Your task to perform on an android device: Search for a sofa on article.com Image 0: 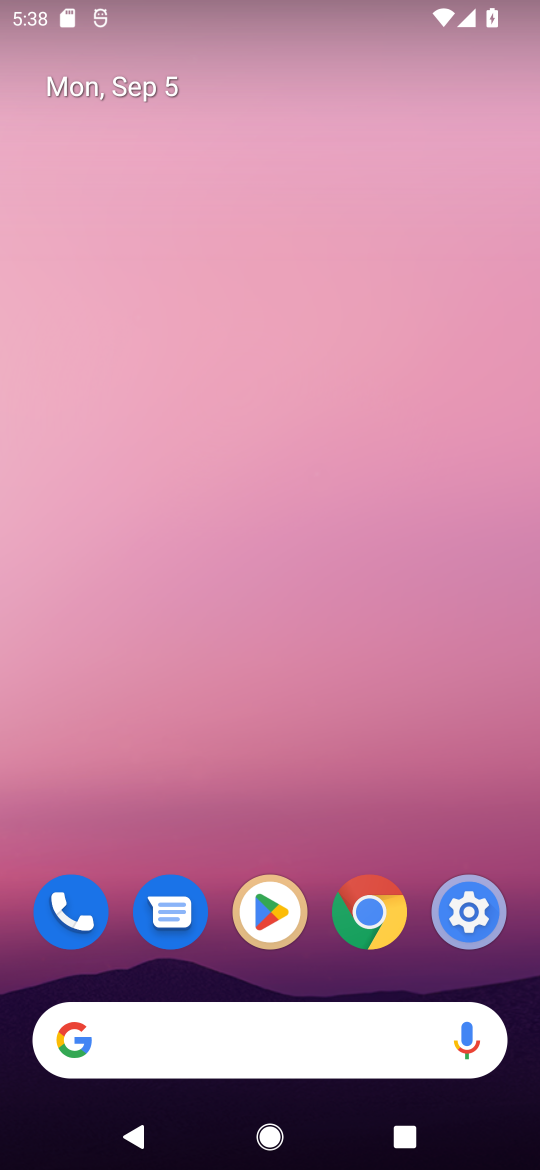
Step 0: click (373, 925)
Your task to perform on an android device: Search for a sofa on article.com Image 1: 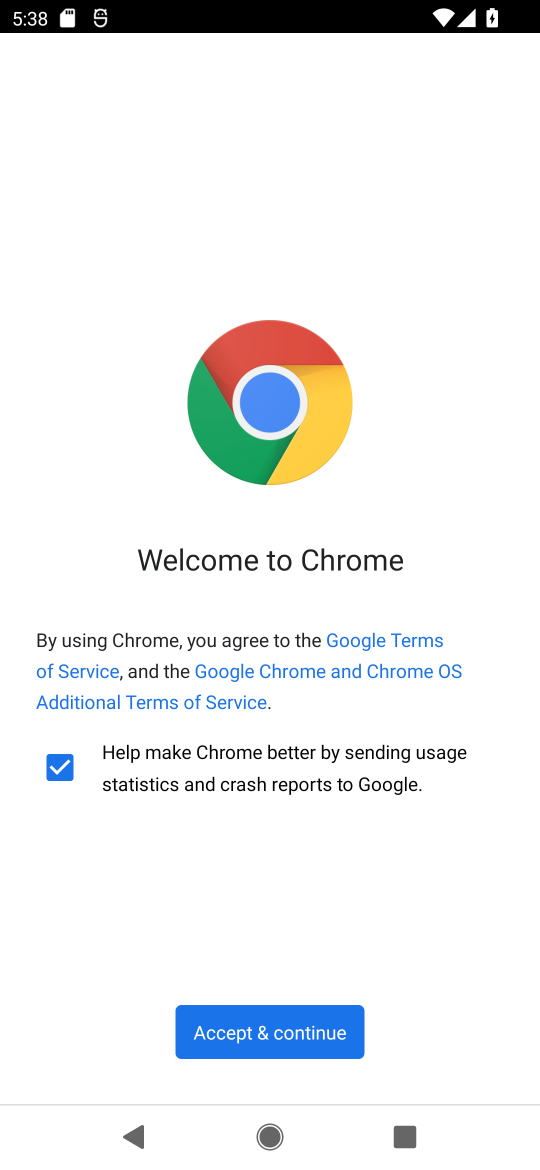
Step 1: click (292, 1043)
Your task to perform on an android device: Search for a sofa on article.com Image 2: 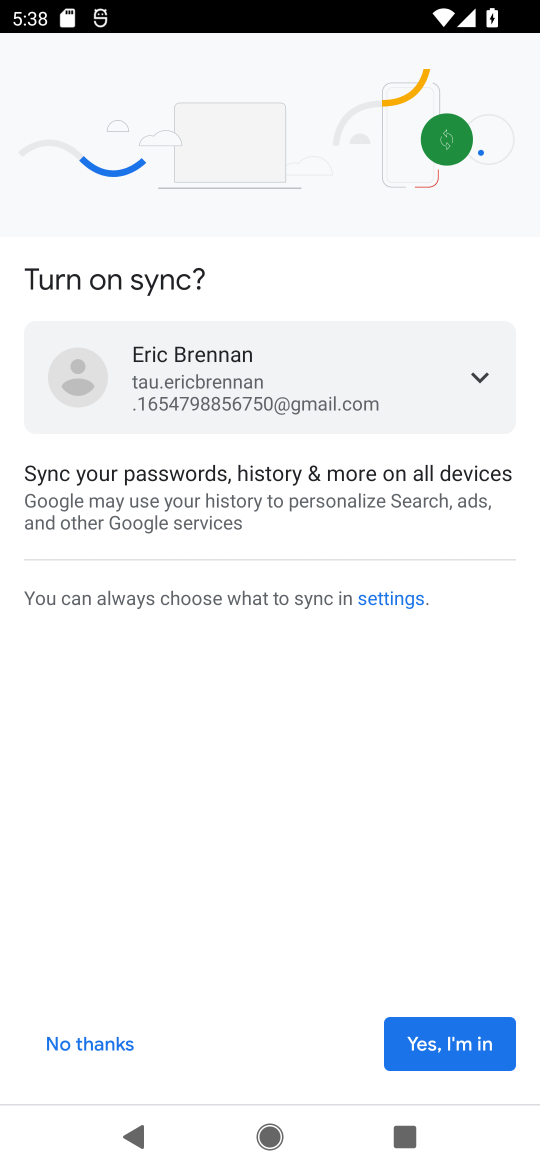
Step 2: click (419, 1036)
Your task to perform on an android device: Search for a sofa on article.com Image 3: 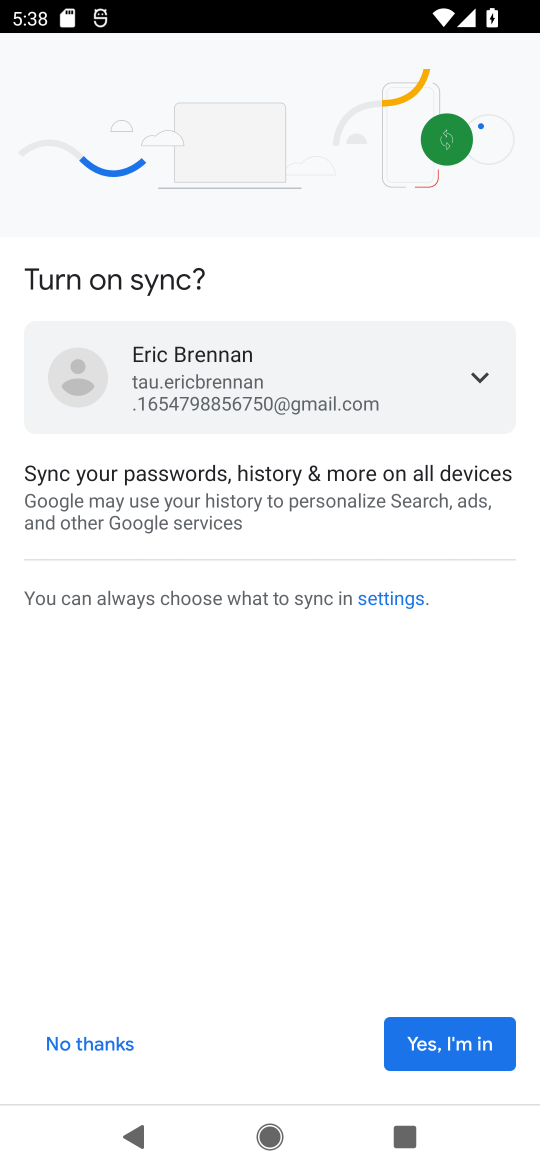
Step 3: click (490, 1040)
Your task to perform on an android device: Search for a sofa on article.com Image 4: 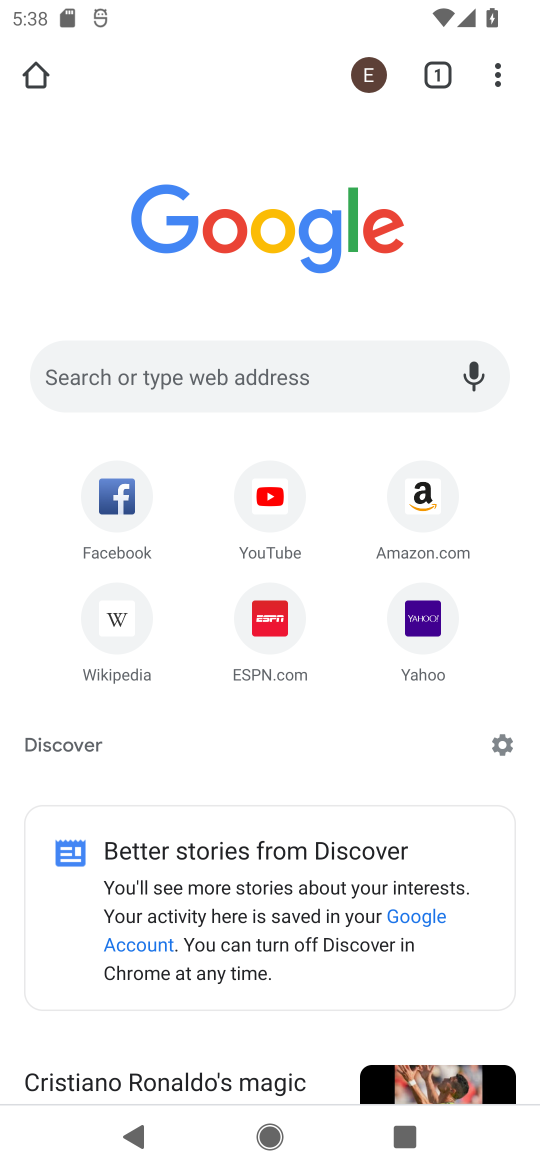
Step 4: click (221, 378)
Your task to perform on an android device: Search for a sofa on article.com Image 5: 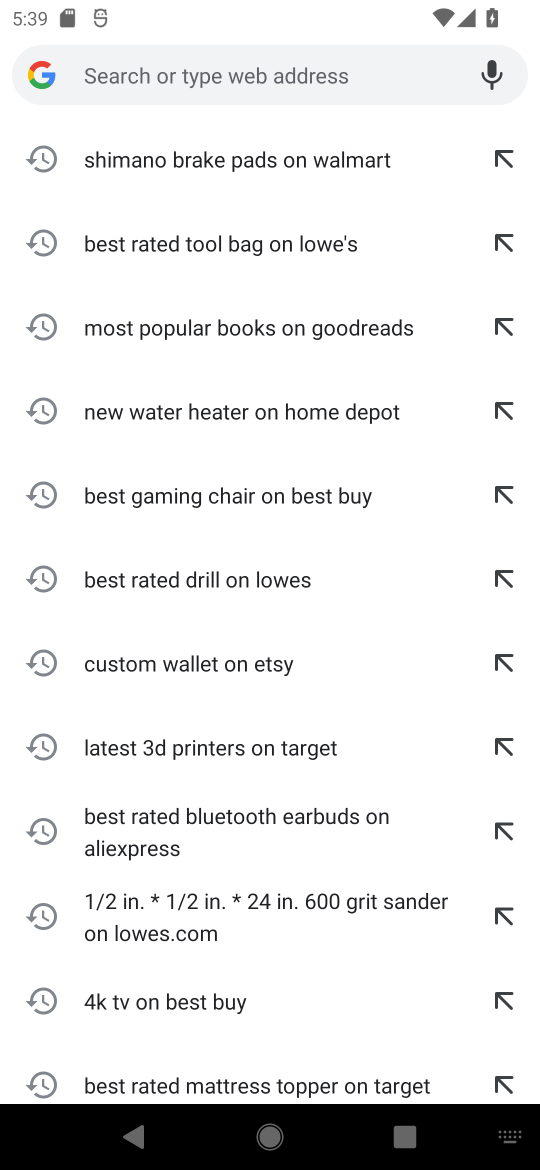
Step 5: type "Article.com"
Your task to perform on an android device: Search for a sofa on article.com Image 6: 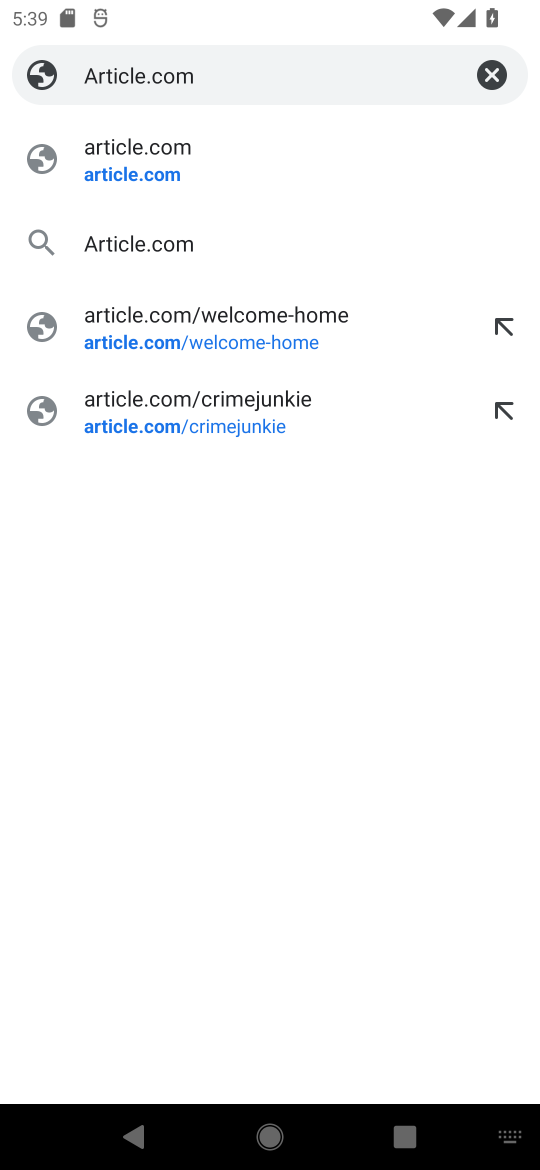
Step 6: click (121, 151)
Your task to perform on an android device: Search for a sofa on article.com Image 7: 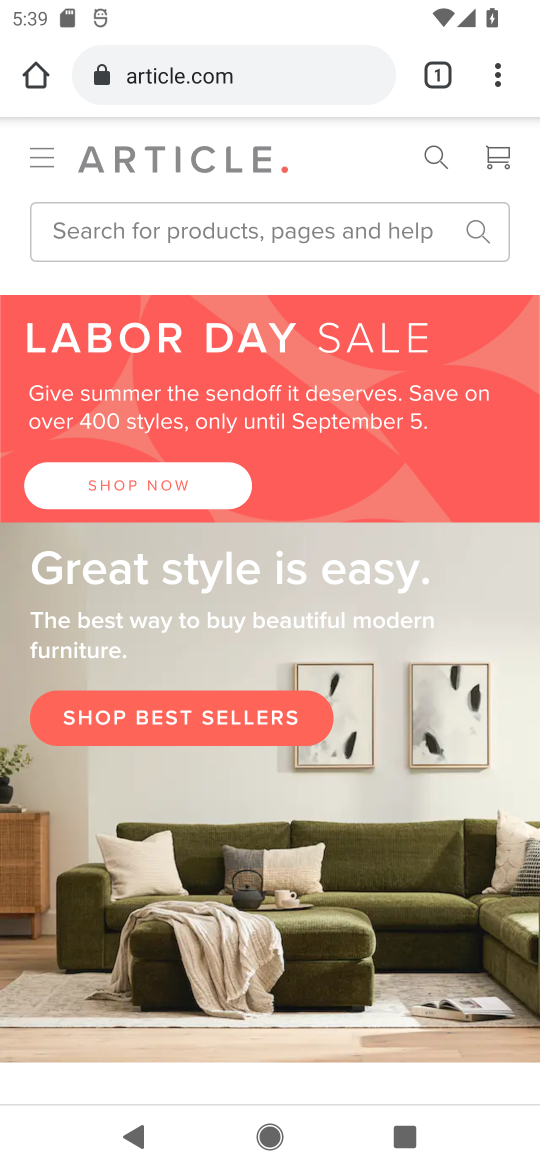
Step 7: click (274, 224)
Your task to perform on an android device: Search for a sofa on article.com Image 8: 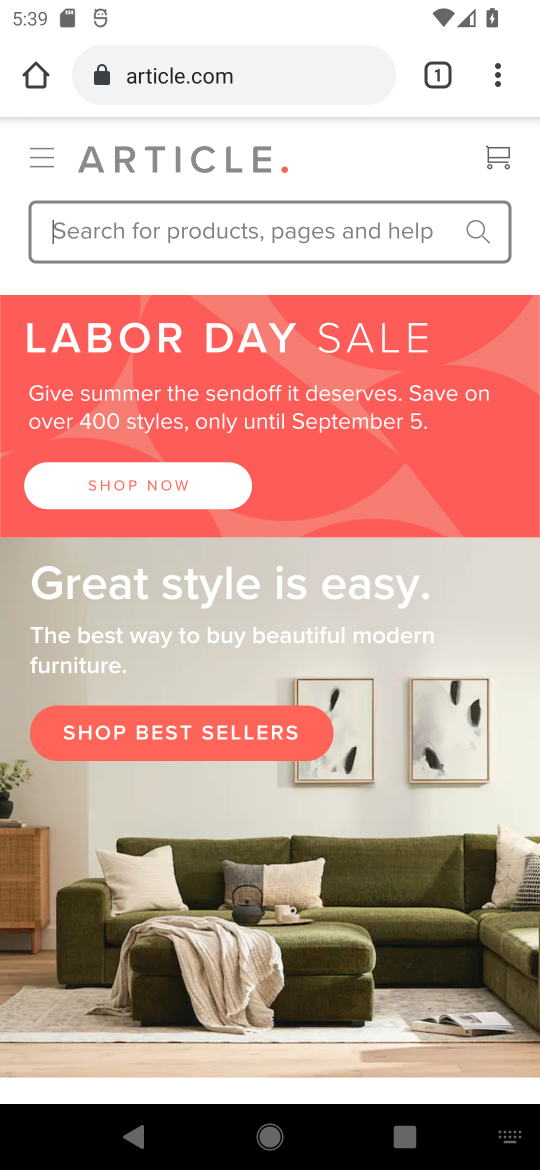
Step 8: type "sofa"
Your task to perform on an android device: Search for a sofa on article.com Image 9: 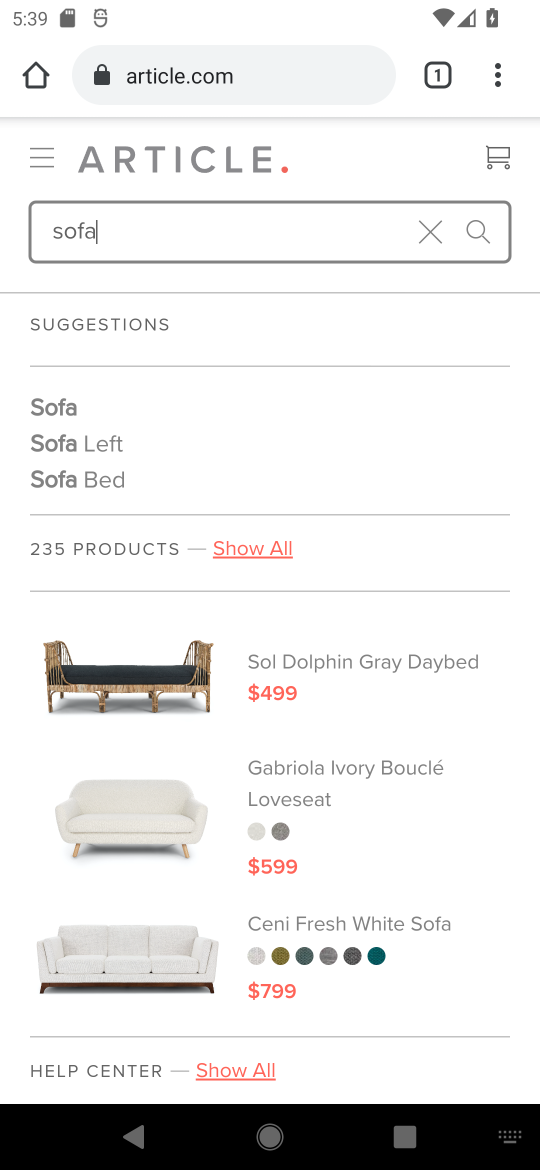
Step 9: click (469, 235)
Your task to perform on an android device: Search for a sofa on article.com Image 10: 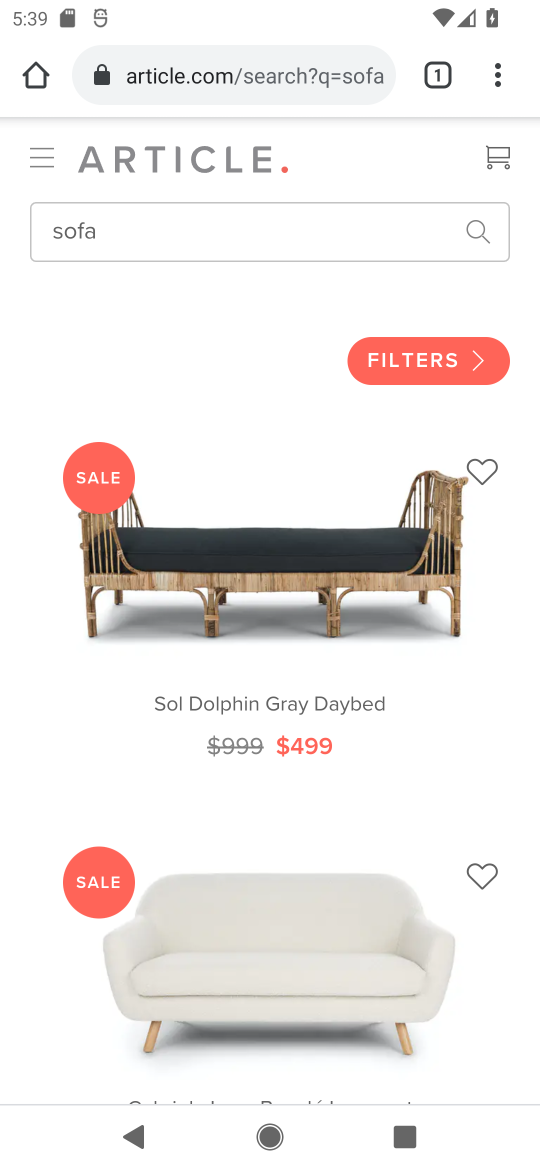
Step 10: task complete